Your task to perform on an android device: turn on sleep mode Image 0: 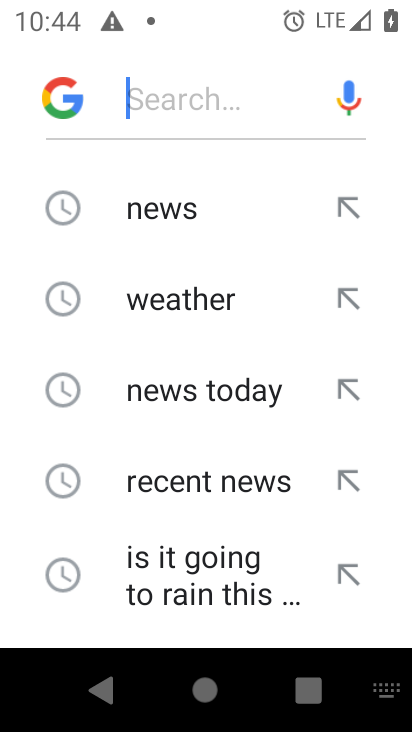
Step 0: press home button
Your task to perform on an android device: turn on sleep mode Image 1: 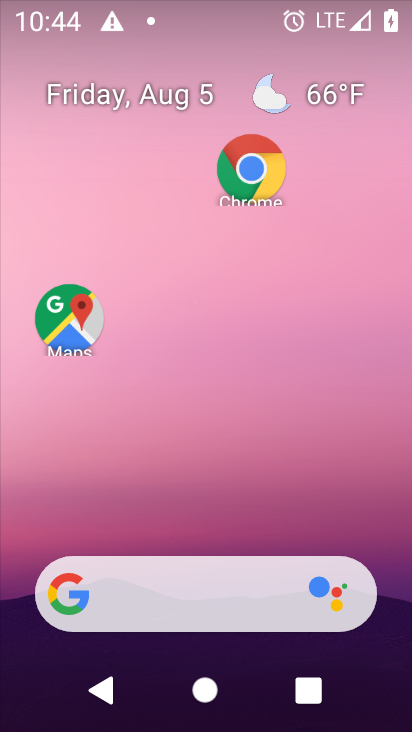
Step 1: drag from (183, 523) to (108, 82)
Your task to perform on an android device: turn on sleep mode Image 2: 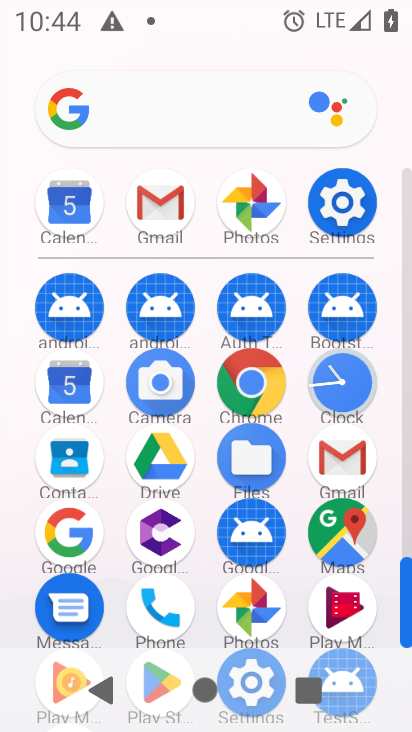
Step 2: click (315, 201)
Your task to perform on an android device: turn on sleep mode Image 3: 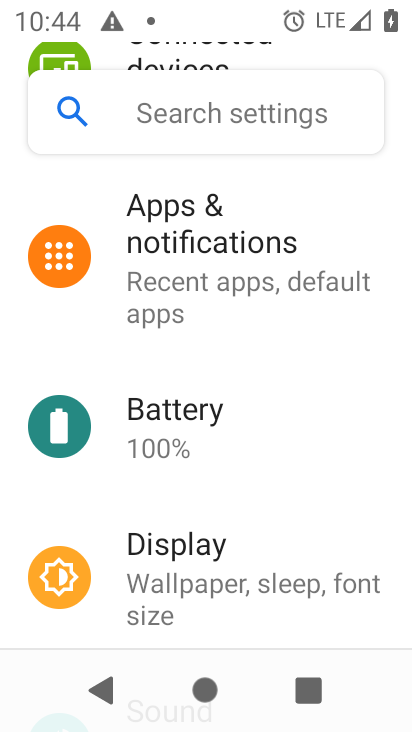
Step 3: click (225, 572)
Your task to perform on an android device: turn on sleep mode Image 4: 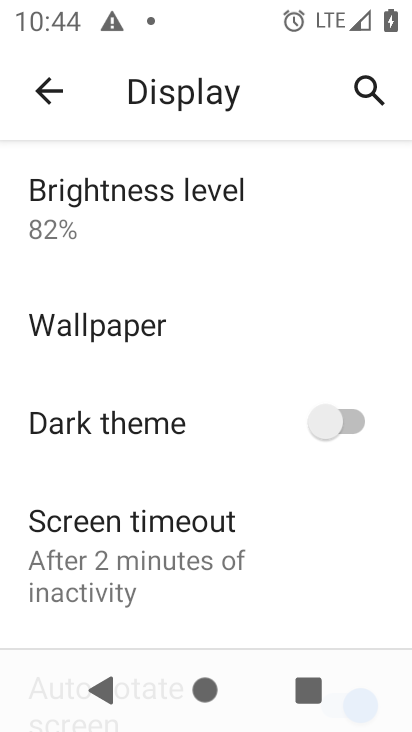
Step 4: click (173, 550)
Your task to perform on an android device: turn on sleep mode Image 5: 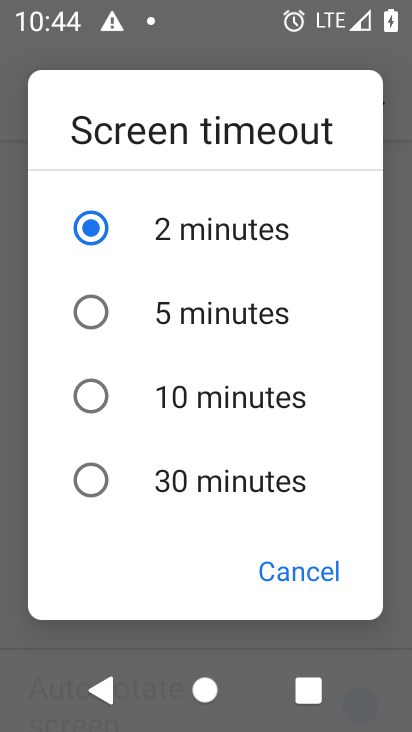
Step 5: click (189, 474)
Your task to perform on an android device: turn on sleep mode Image 6: 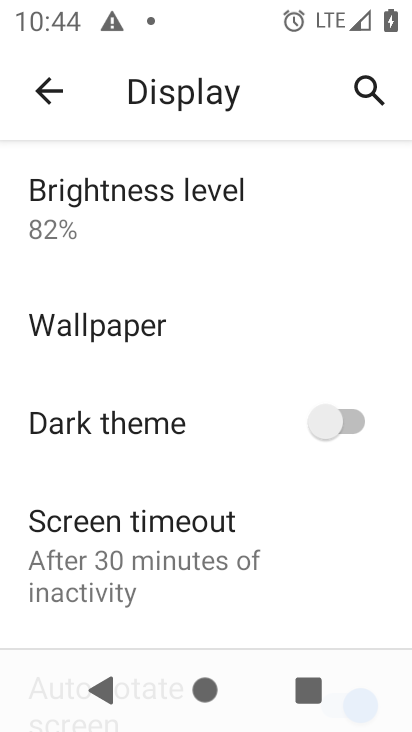
Step 6: task complete